Your task to perform on an android device: check data usage Image 0: 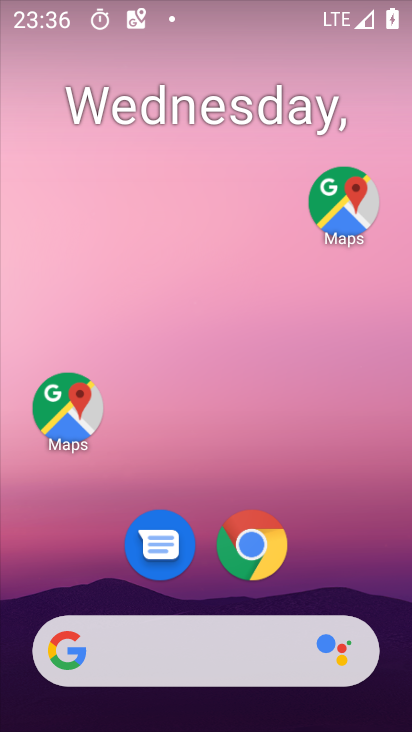
Step 0: drag from (225, 476) to (360, 1)
Your task to perform on an android device: check data usage Image 1: 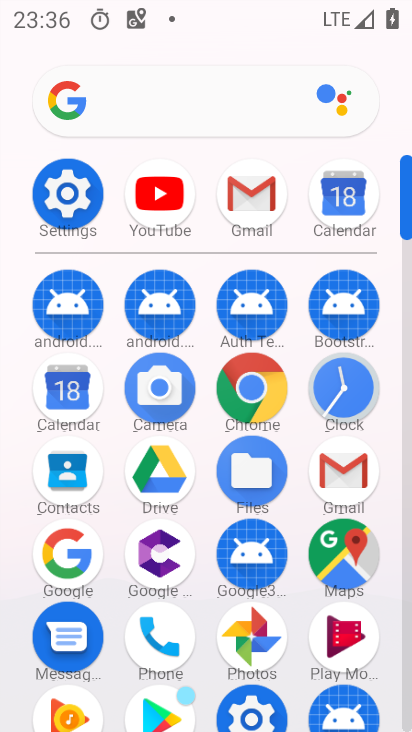
Step 1: click (62, 185)
Your task to perform on an android device: check data usage Image 2: 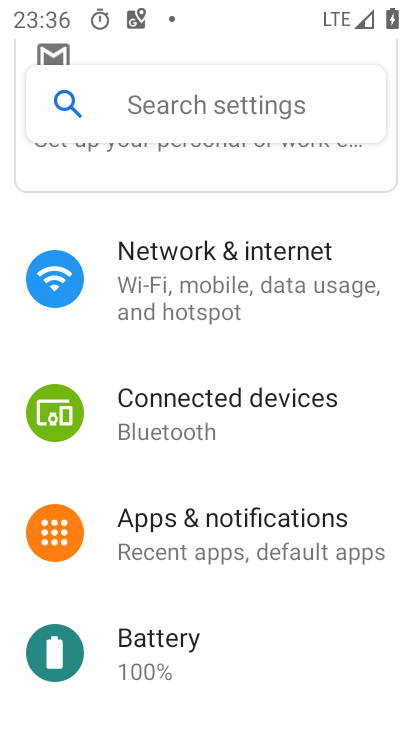
Step 2: drag from (212, 586) to (243, 454)
Your task to perform on an android device: check data usage Image 3: 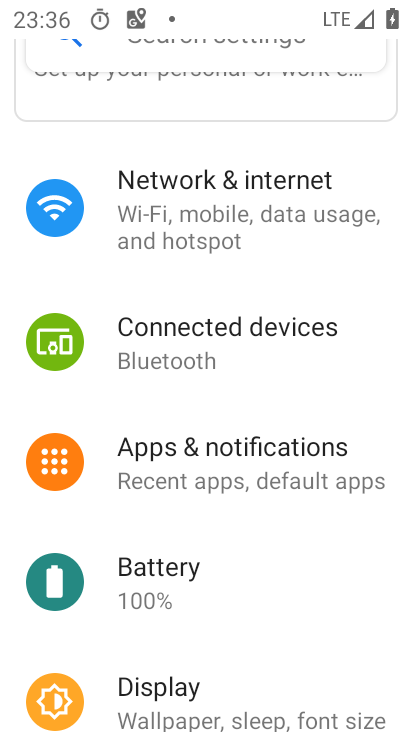
Step 3: click (180, 238)
Your task to perform on an android device: check data usage Image 4: 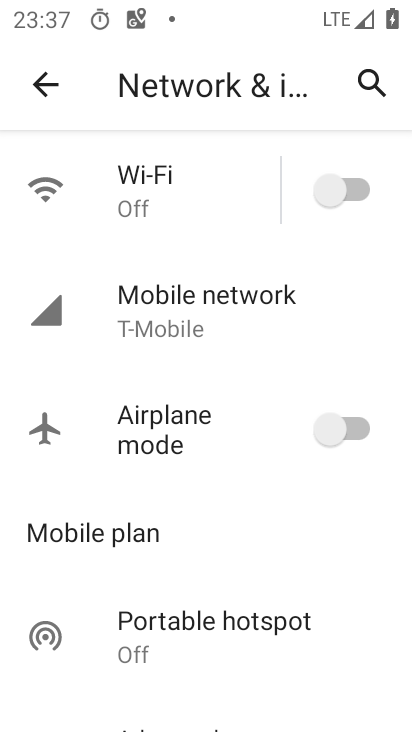
Step 4: click (160, 326)
Your task to perform on an android device: check data usage Image 5: 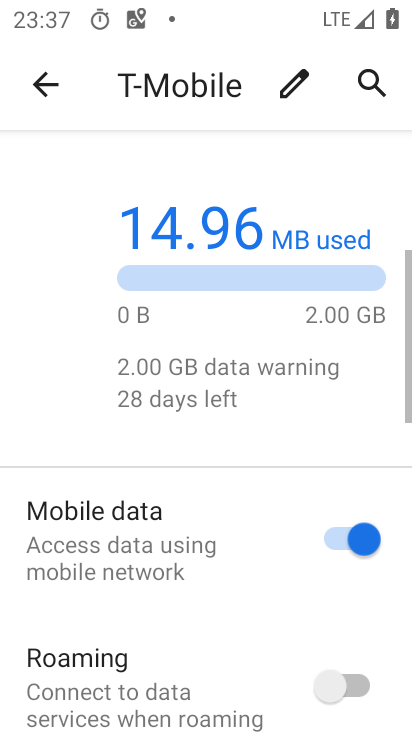
Step 5: drag from (179, 607) to (291, 250)
Your task to perform on an android device: check data usage Image 6: 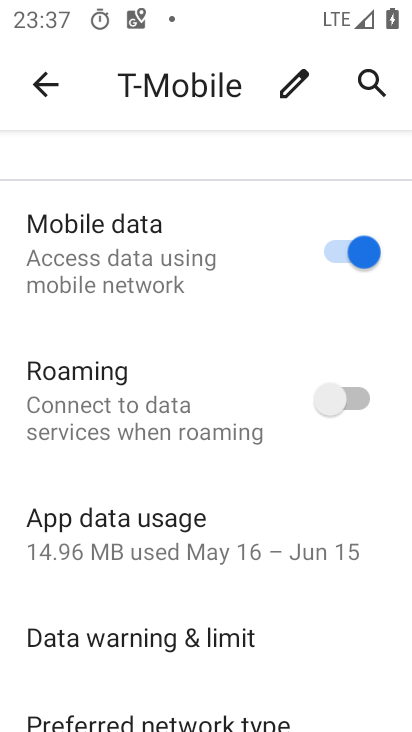
Step 6: click (163, 539)
Your task to perform on an android device: check data usage Image 7: 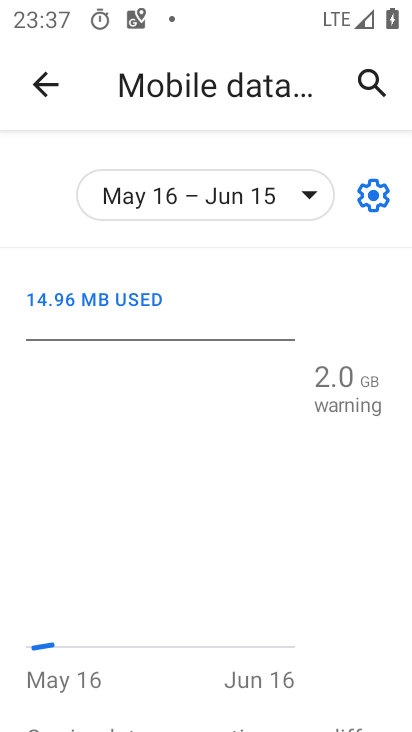
Step 7: task complete